Your task to perform on an android device: allow cookies in the chrome app Image 0: 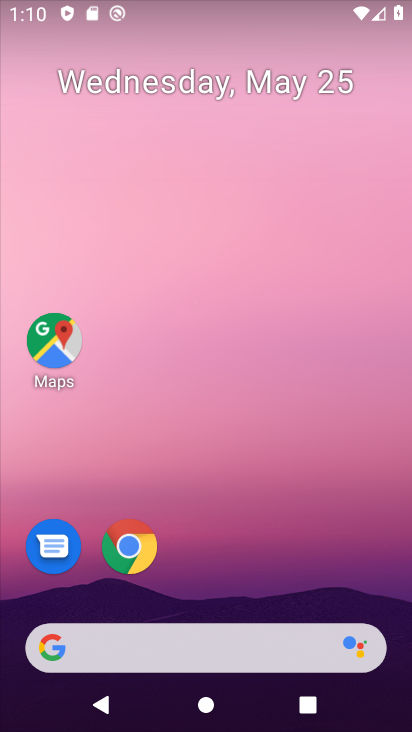
Step 0: drag from (374, 585) to (379, 74)
Your task to perform on an android device: allow cookies in the chrome app Image 1: 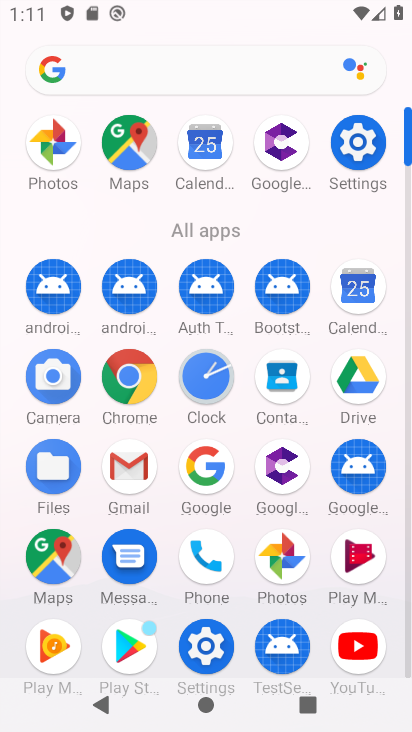
Step 1: click (136, 381)
Your task to perform on an android device: allow cookies in the chrome app Image 2: 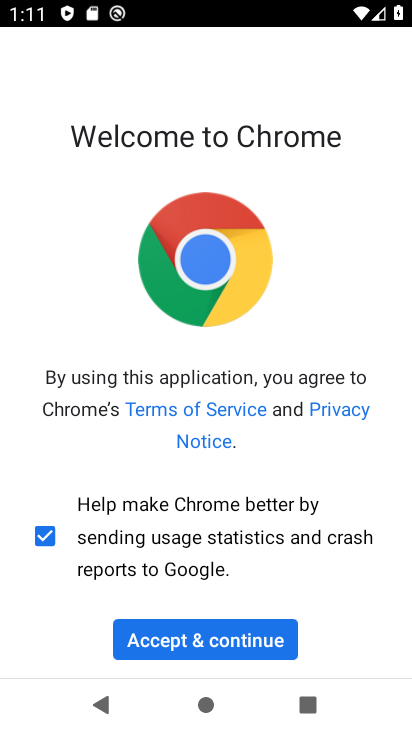
Step 2: click (224, 637)
Your task to perform on an android device: allow cookies in the chrome app Image 3: 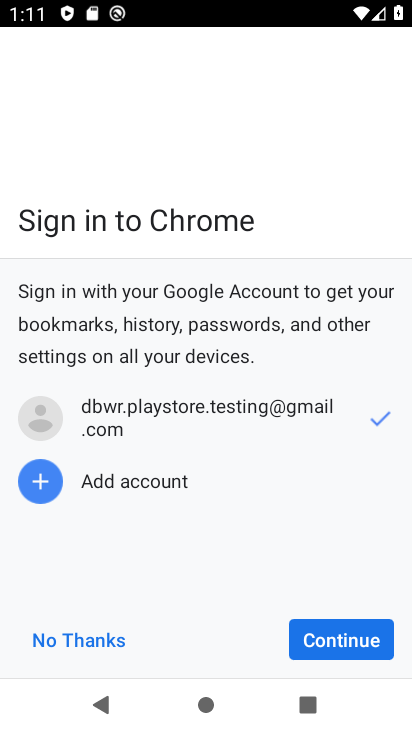
Step 3: click (313, 647)
Your task to perform on an android device: allow cookies in the chrome app Image 4: 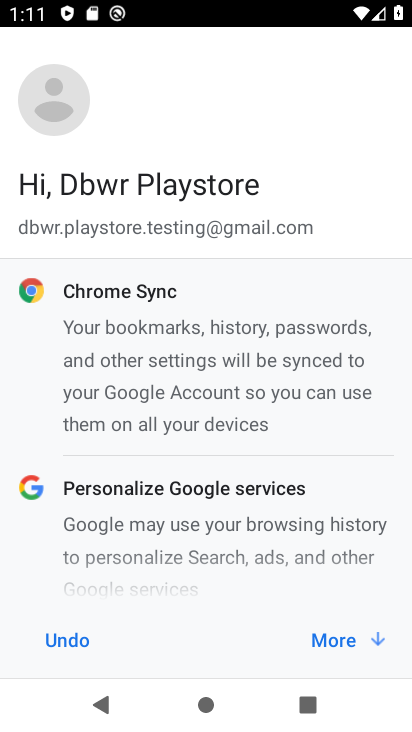
Step 4: click (327, 644)
Your task to perform on an android device: allow cookies in the chrome app Image 5: 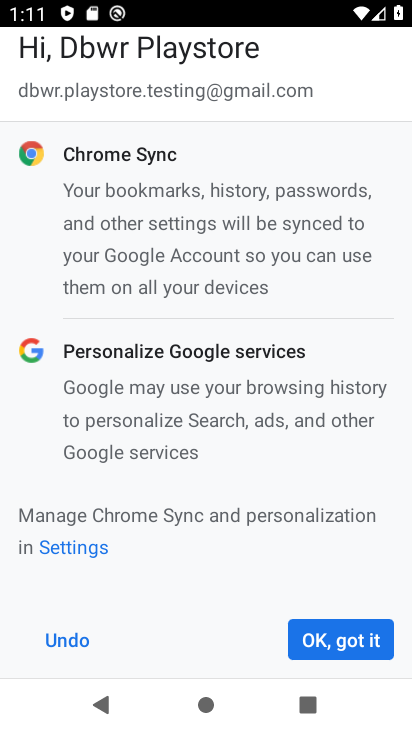
Step 5: click (327, 644)
Your task to perform on an android device: allow cookies in the chrome app Image 6: 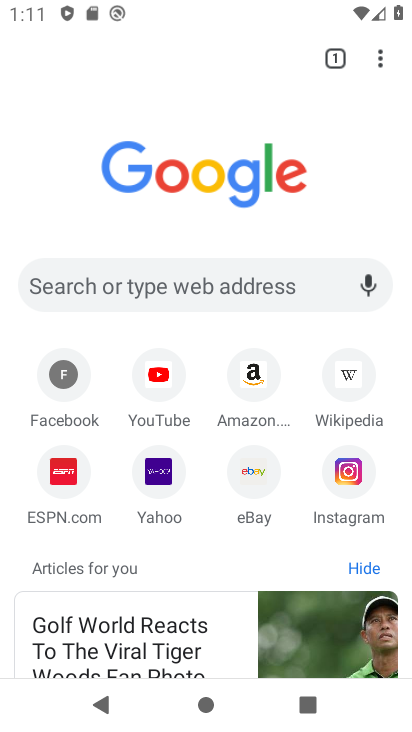
Step 6: click (381, 63)
Your task to perform on an android device: allow cookies in the chrome app Image 7: 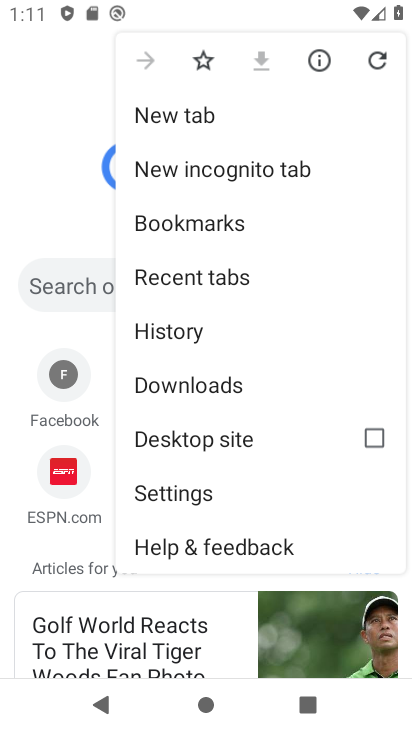
Step 7: click (223, 502)
Your task to perform on an android device: allow cookies in the chrome app Image 8: 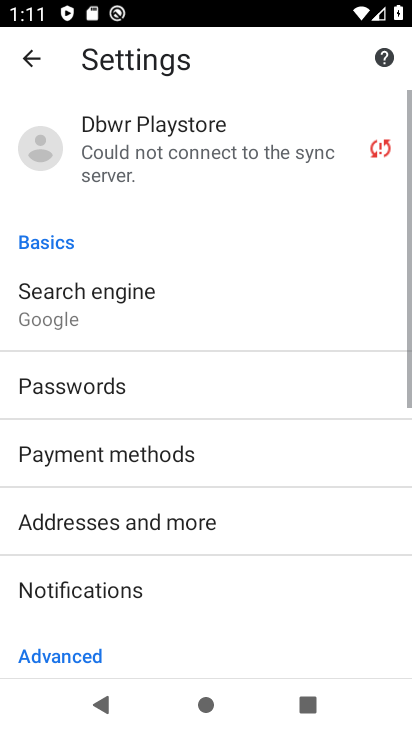
Step 8: drag from (317, 560) to (334, 438)
Your task to perform on an android device: allow cookies in the chrome app Image 9: 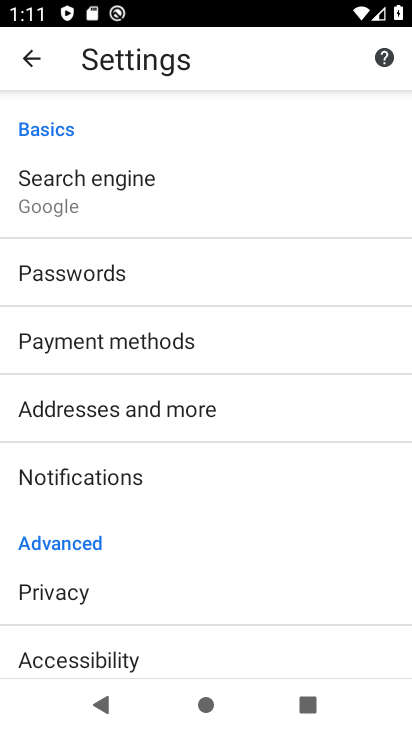
Step 9: drag from (326, 557) to (331, 426)
Your task to perform on an android device: allow cookies in the chrome app Image 10: 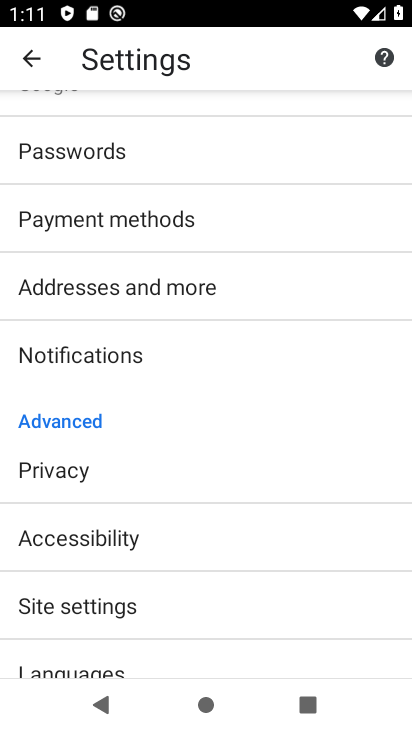
Step 10: drag from (323, 599) to (326, 446)
Your task to perform on an android device: allow cookies in the chrome app Image 11: 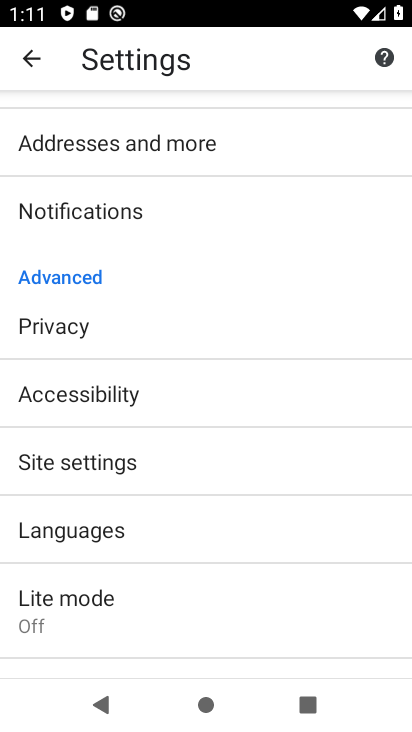
Step 11: drag from (317, 561) to (319, 464)
Your task to perform on an android device: allow cookies in the chrome app Image 12: 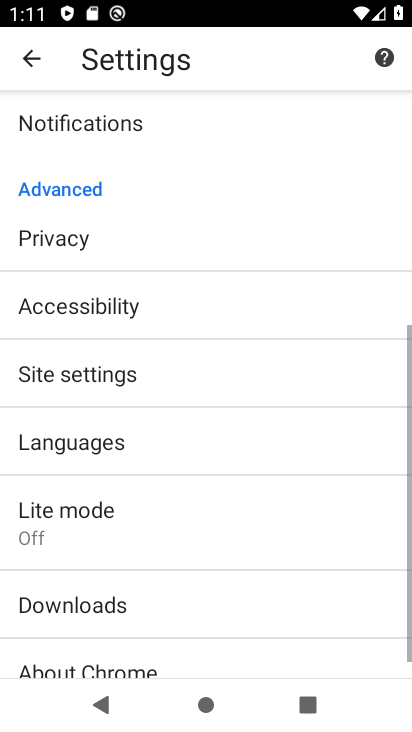
Step 12: drag from (303, 595) to (304, 471)
Your task to perform on an android device: allow cookies in the chrome app Image 13: 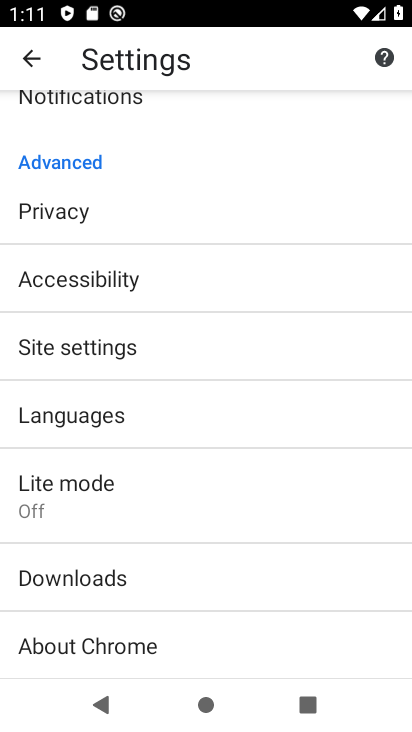
Step 13: drag from (313, 557) to (322, 327)
Your task to perform on an android device: allow cookies in the chrome app Image 14: 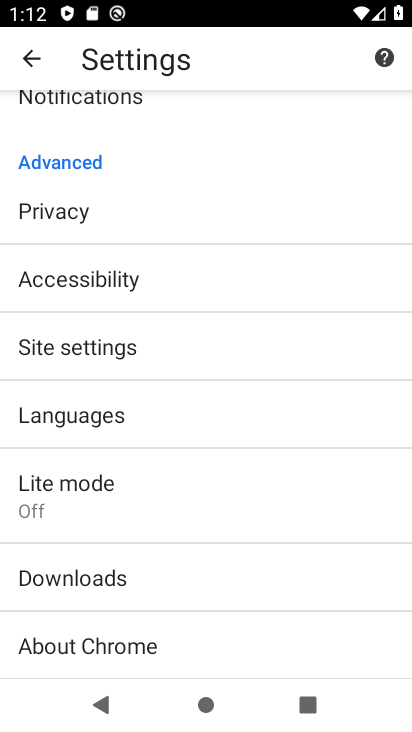
Step 14: click (212, 337)
Your task to perform on an android device: allow cookies in the chrome app Image 15: 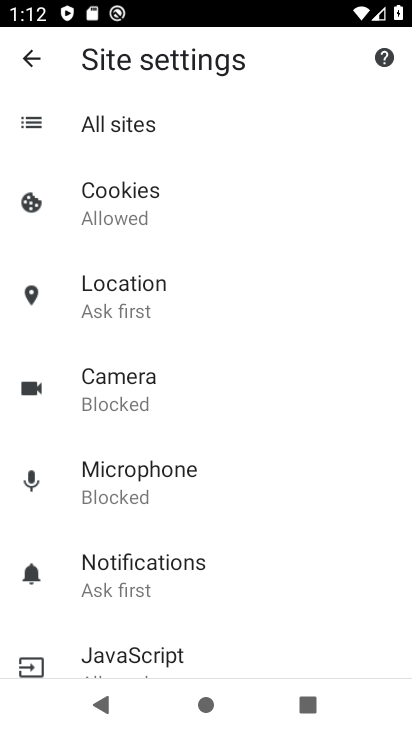
Step 15: click (151, 212)
Your task to perform on an android device: allow cookies in the chrome app Image 16: 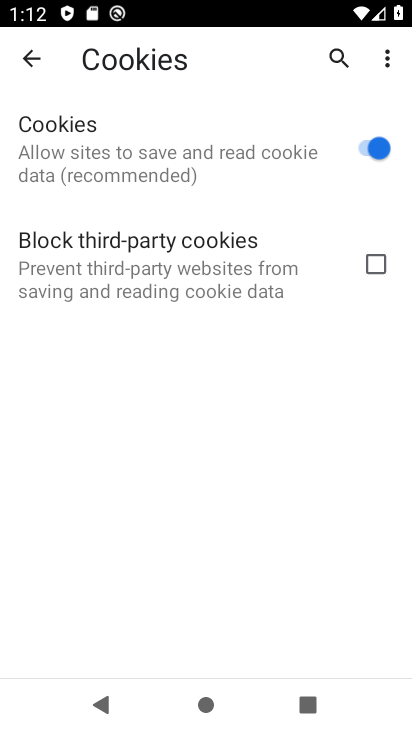
Step 16: task complete